Your task to perform on an android device: Go to Google Image 0: 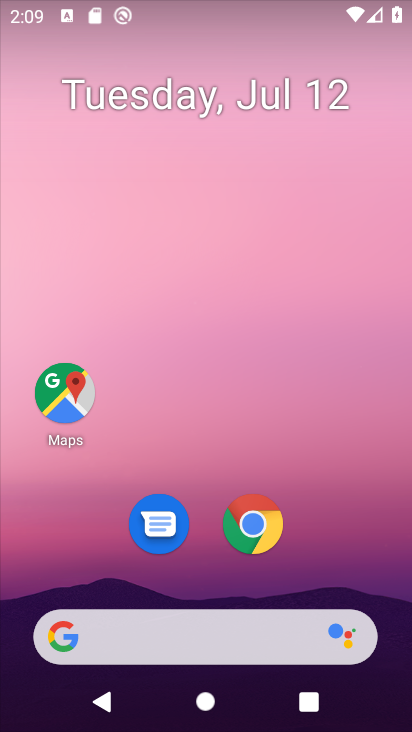
Step 0: drag from (299, 531) to (322, 23)
Your task to perform on an android device: Go to Google Image 1: 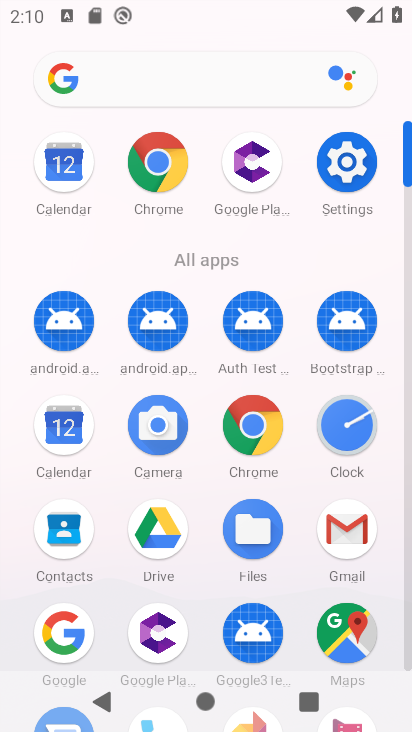
Step 1: click (72, 627)
Your task to perform on an android device: Go to Google Image 2: 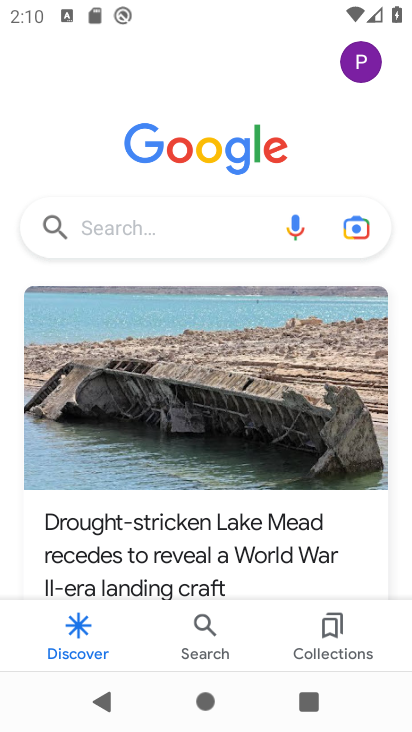
Step 2: task complete